Your task to perform on an android device: allow cookies in the chrome app Image 0: 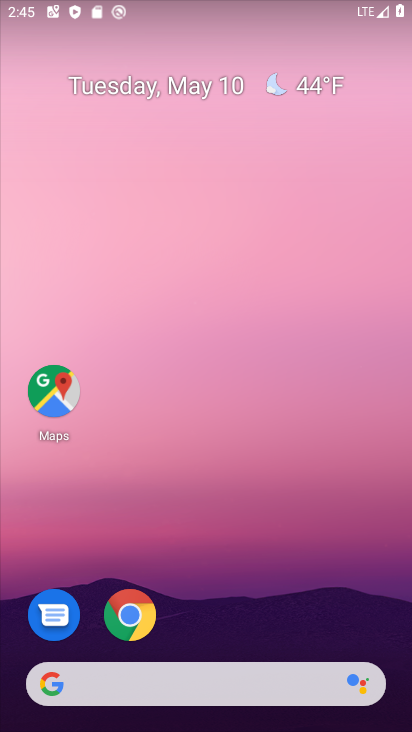
Step 0: press home button
Your task to perform on an android device: allow cookies in the chrome app Image 1: 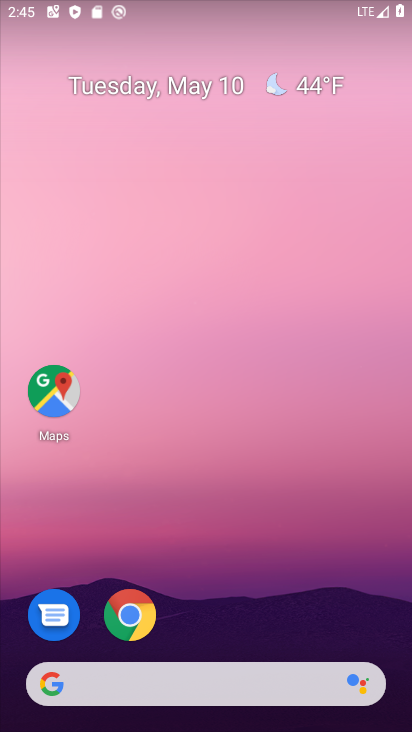
Step 1: click (140, 615)
Your task to perform on an android device: allow cookies in the chrome app Image 2: 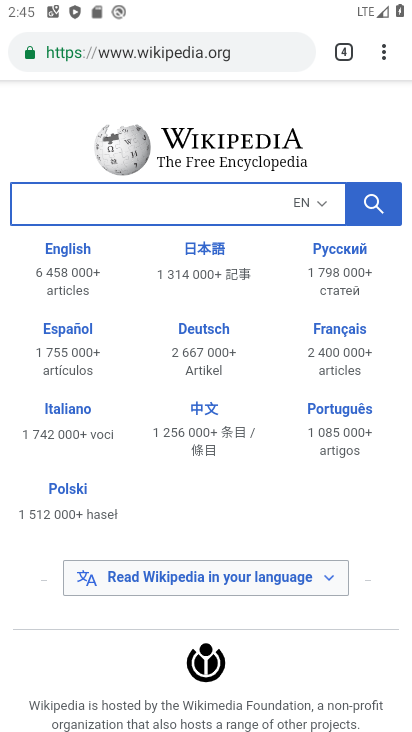
Step 2: drag from (389, 49) to (230, 636)
Your task to perform on an android device: allow cookies in the chrome app Image 3: 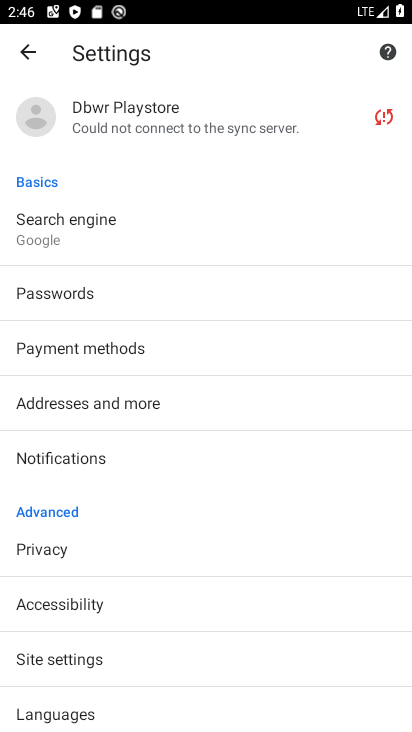
Step 3: click (158, 269)
Your task to perform on an android device: allow cookies in the chrome app Image 4: 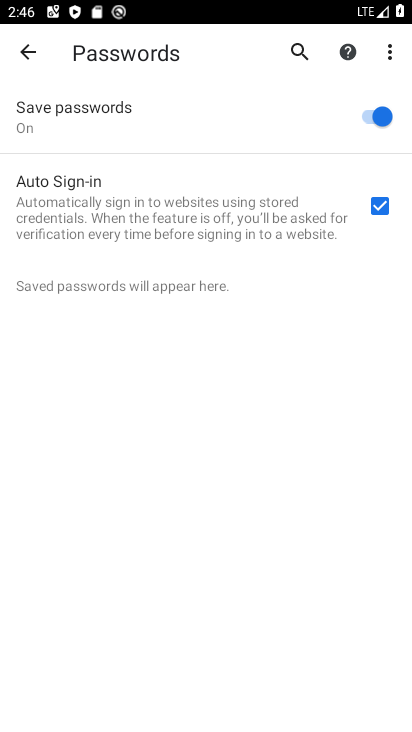
Step 4: click (85, 653)
Your task to perform on an android device: allow cookies in the chrome app Image 5: 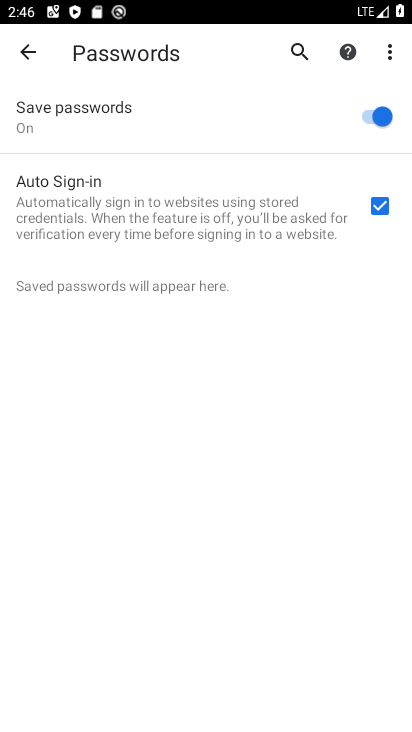
Step 5: click (25, 22)
Your task to perform on an android device: allow cookies in the chrome app Image 6: 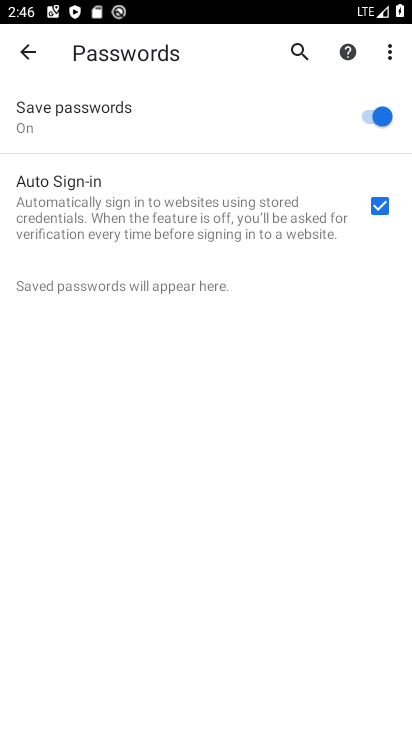
Step 6: click (35, 55)
Your task to perform on an android device: allow cookies in the chrome app Image 7: 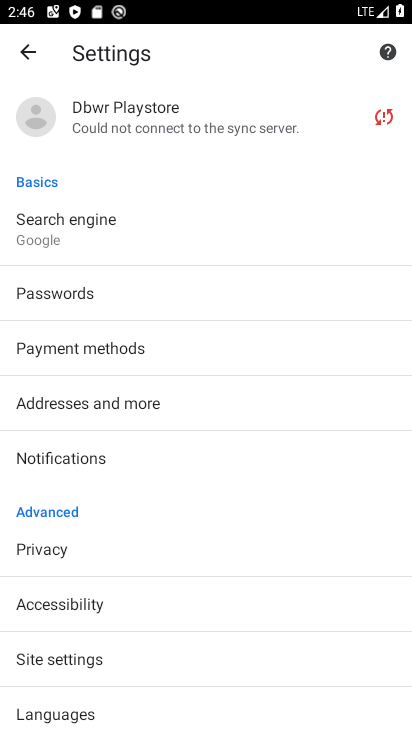
Step 7: click (112, 658)
Your task to perform on an android device: allow cookies in the chrome app Image 8: 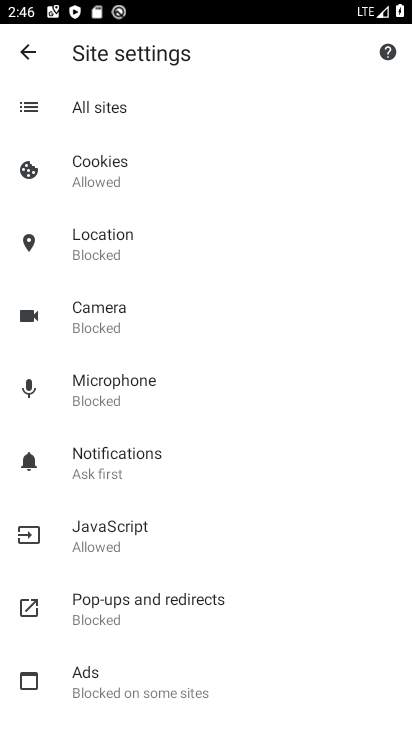
Step 8: click (148, 150)
Your task to perform on an android device: allow cookies in the chrome app Image 9: 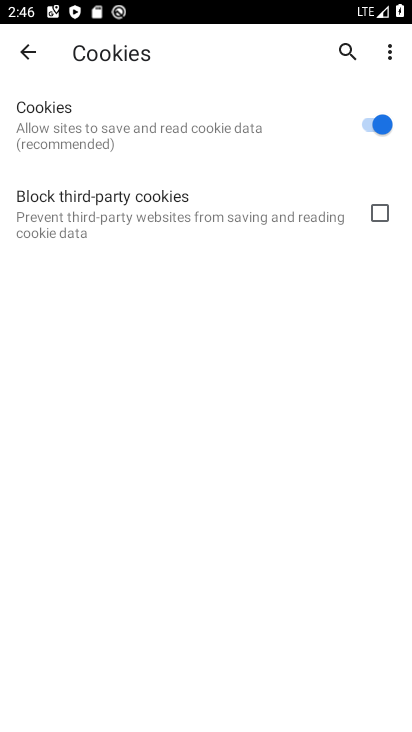
Step 9: task complete